Your task to perform on an android device: set default search engine in the chrome app Image 0: 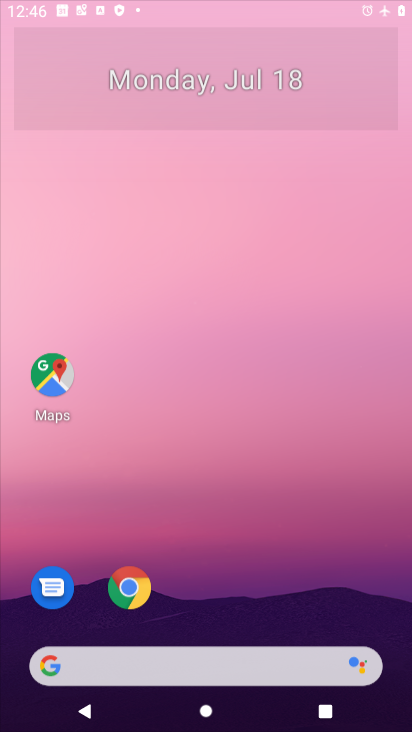
Step 0: drag from (242, 517) to (239, 213)
Your task to perform on an android device: set default search engine in the chrome app Image 1: 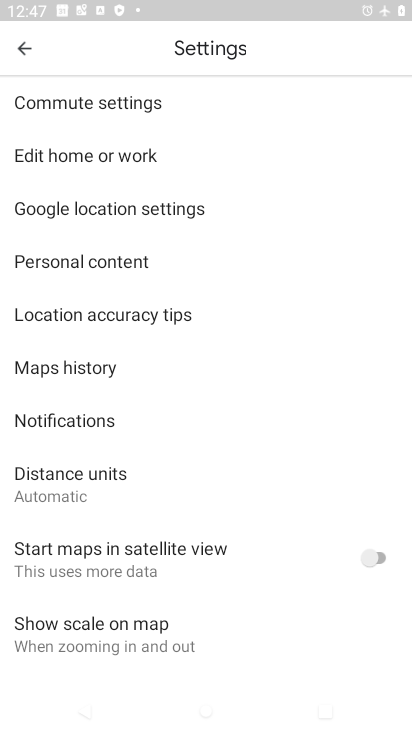
Step 1: press home button
Your task to perform on an android device: set default search engine in the chrome app Image 2: 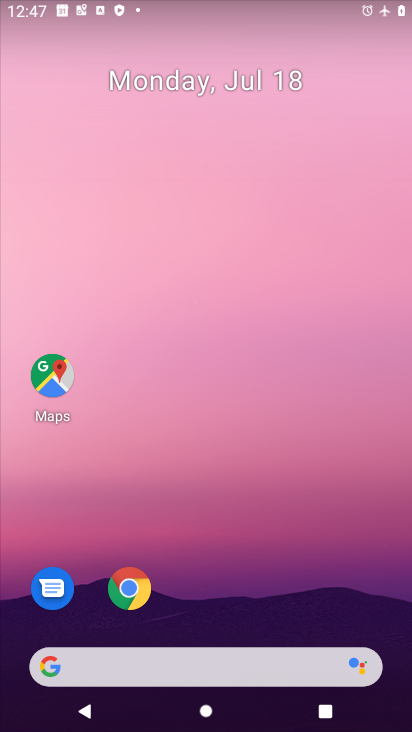
Step 2: drag from (282, 649) to (354, 107)
Your task to perform on an android device: set default search engine in the chrome app Image 3: 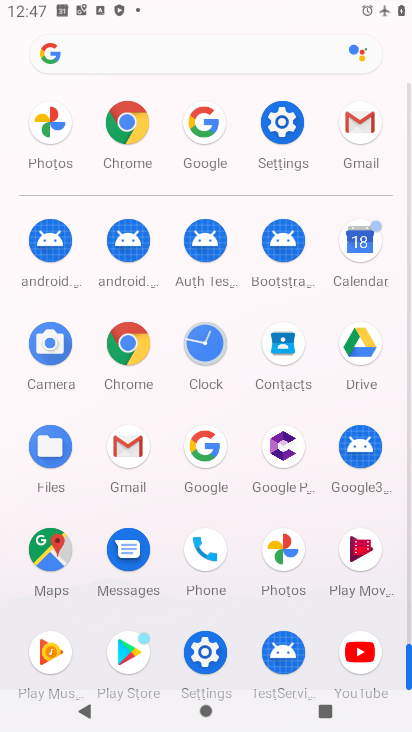
Step 3: click (124, 346)
Your task to perform on an android device: set default search engine in the chrome app Image 4: 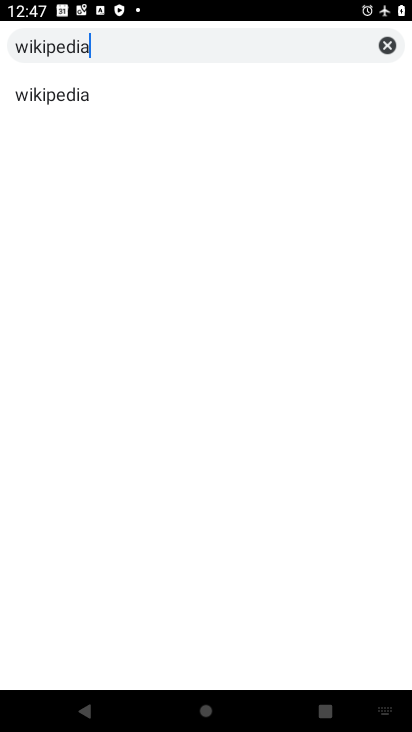
Step 4: press home button
Your task to perform on an android device: set default search engine in the chrome app Image 5: 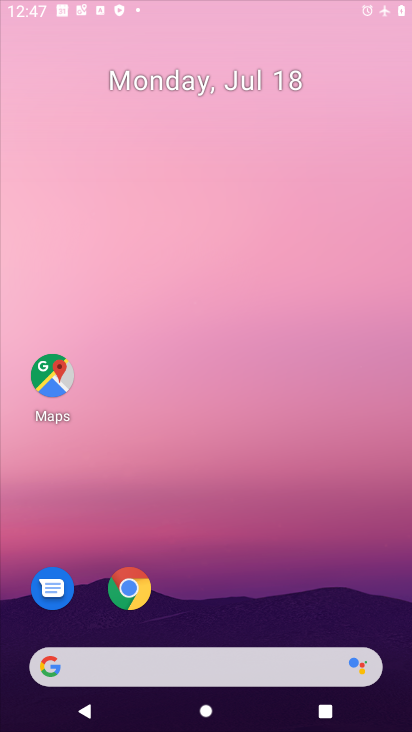
Step 5: drag from (213, 655) to (251, 85)
Your task to perform on an android device: set default search engine in the chrome app Image 6: 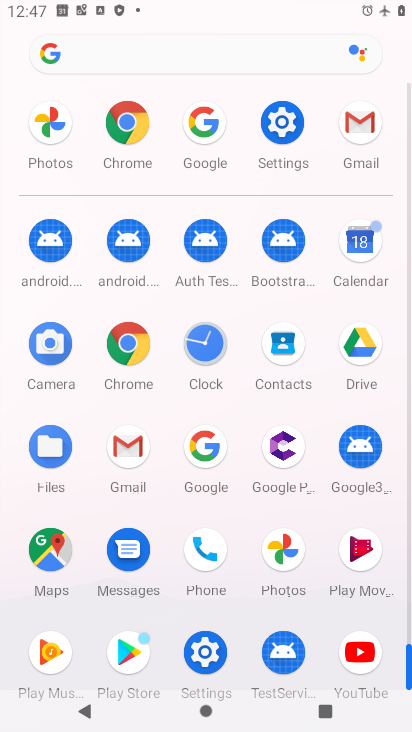
Step 6: click (115, 151)
Your task to perform on an android device: set default search engine in the chrome app Image 7: 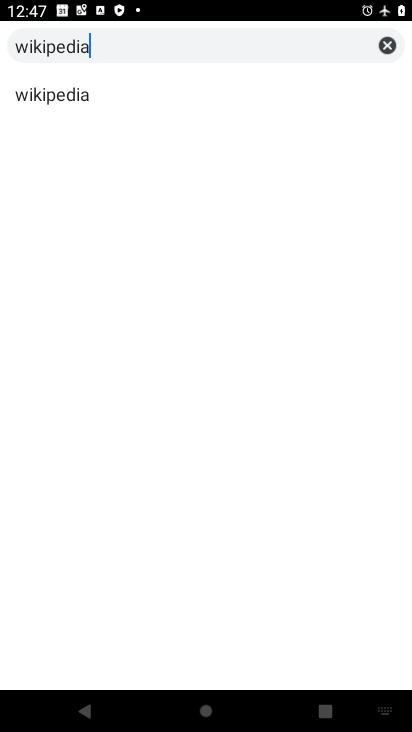
Step 7: click (390, 48)
Your task to perform on an android device: set default search engine in the chrome app Image 8: 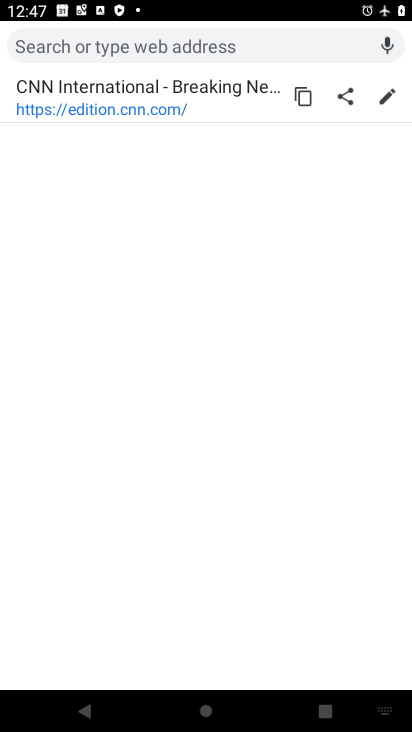
Step 8: press back button
Your task to perform on an android device: set default search engine in the chrome app Image 9: 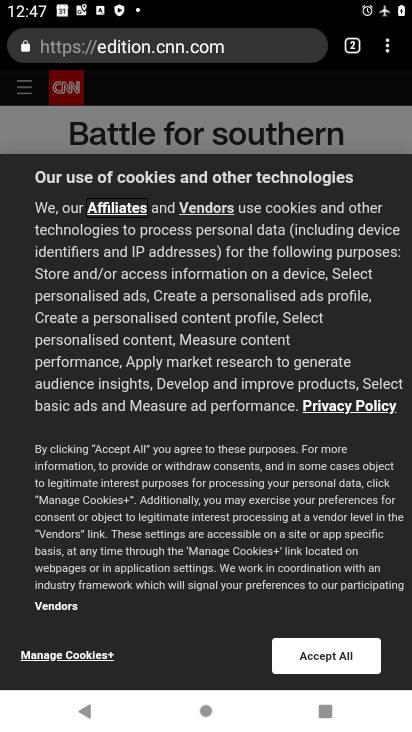
Step 9: click (389, 55)
Your task to perform on an android device: set default search engine in the chrome app Image 10: 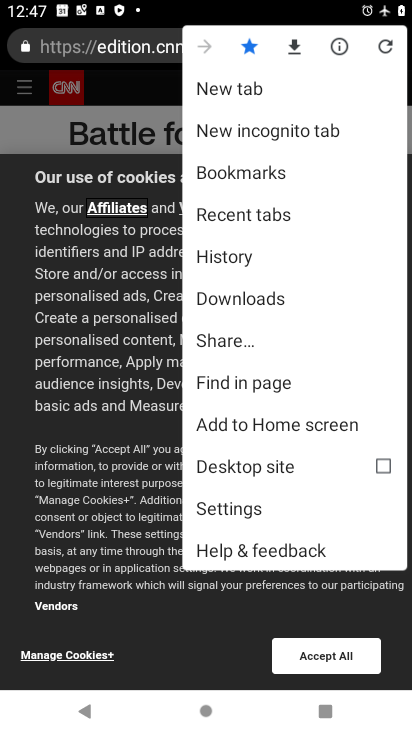
Step 10: click (249, 512)
Your task to perform on an android device: set default search engine in the chrome app Image 11: 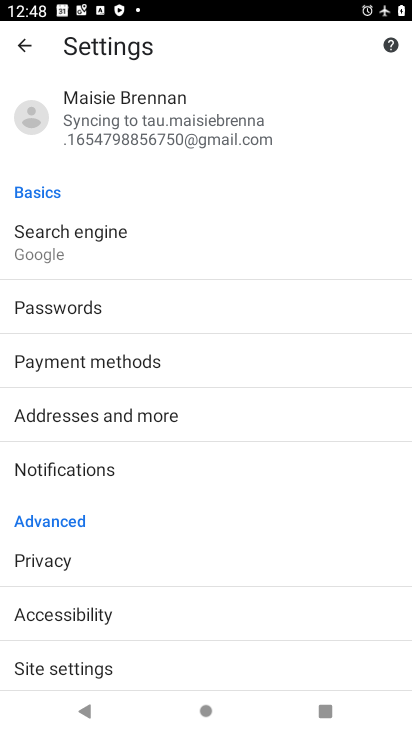
Step 11: click (80, 253)
Your task to perform on an android device: set default search engine in the chrome app Image 12: 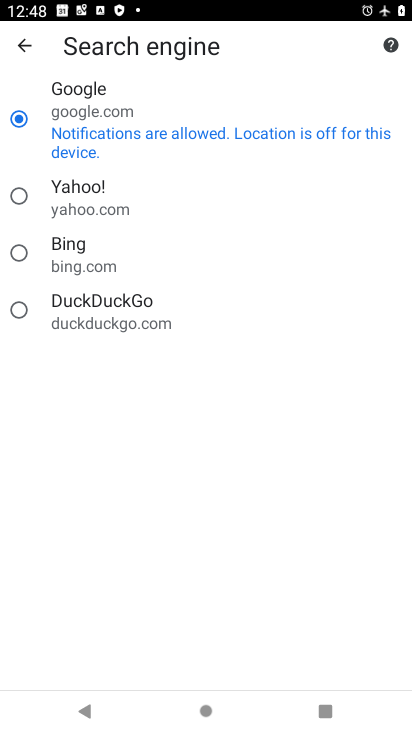
Step 12: task complete